Your task to perform on an android device: check data usage Image 0: 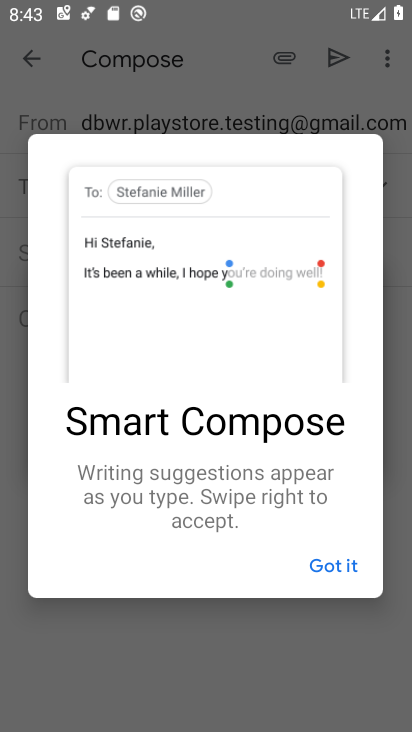
Step 0: press home button
Your task to perform on an android device: check data usage Image 1: 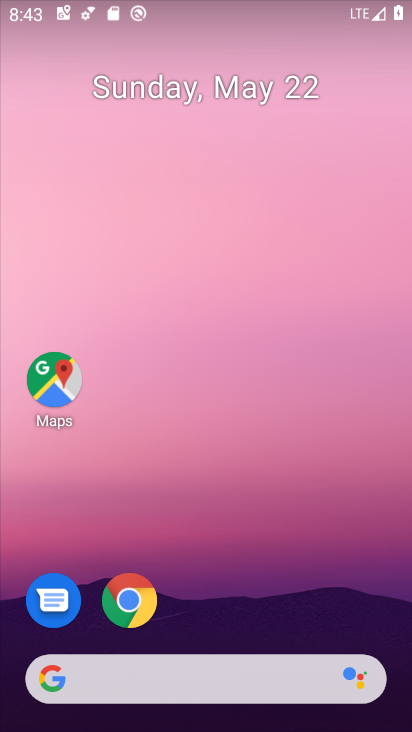
Step 1: drag from (208, 649) to (210, 406)
Your task to perform on an android device: check data usage Image 2: 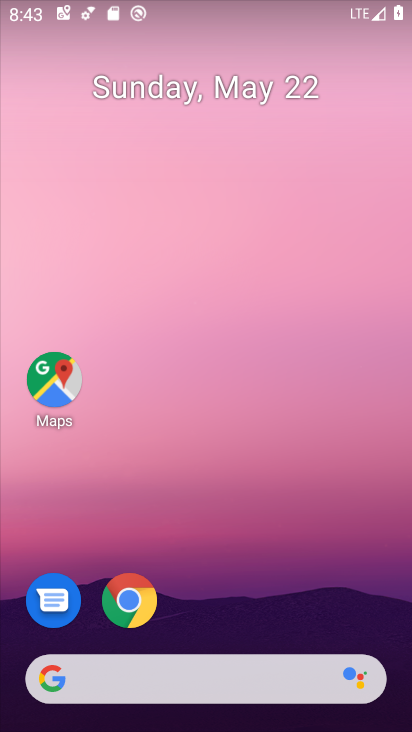
Step 2: drag from (216, 564) to (227, 270)
Your task to perform on an android device: check data usage Image 3: 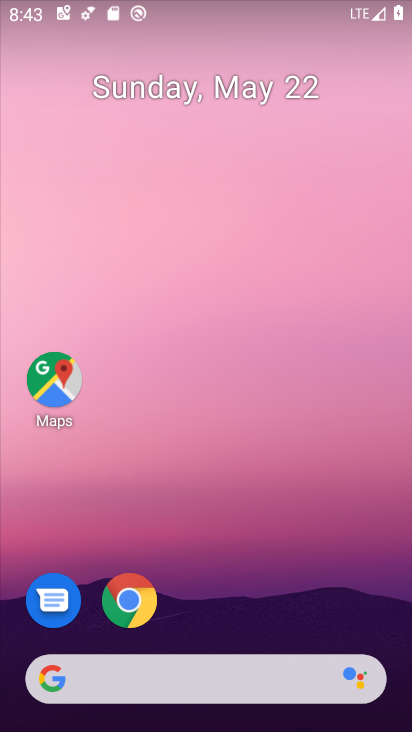
Step 3: drag from (164, 624) to (237, 134)
Your task to perform on an android device: check data usage Image 4: 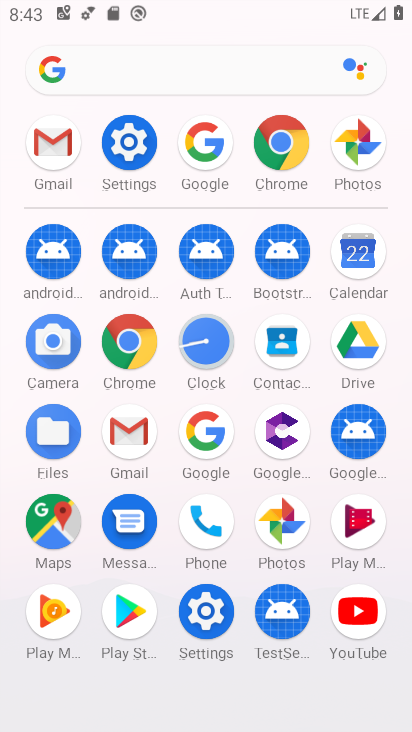
Step 4: click (140, 147)
Your task to perform on an android device: check data usage Image 5: 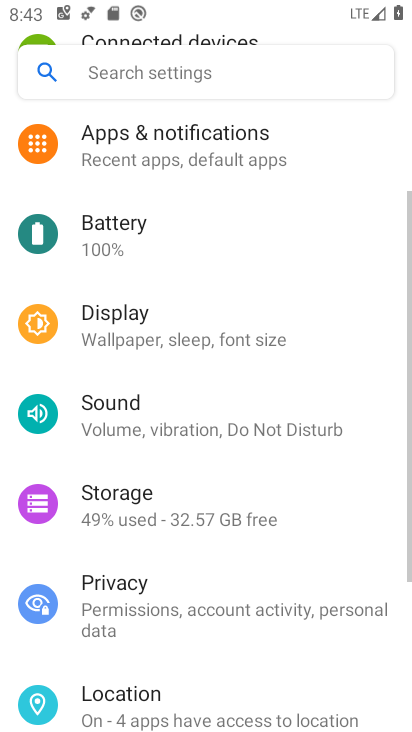
Step 5: drag from (160, 175) to (160, 496)
Your task to perform on an android device: check data usage Image 6: 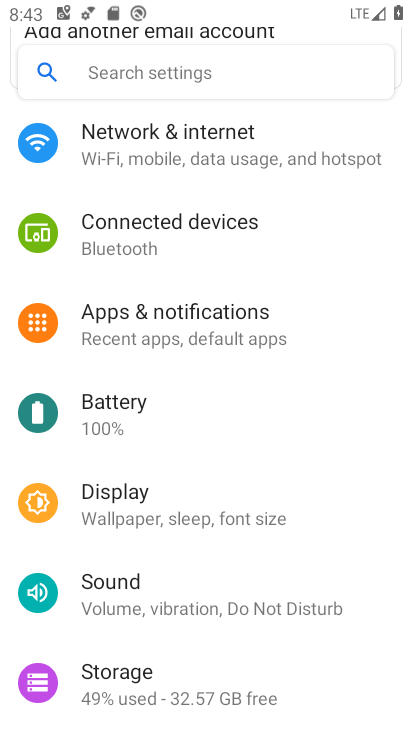
Step 6: click (184, 161)
Your task to perform on an android device: check data usage Image 7: 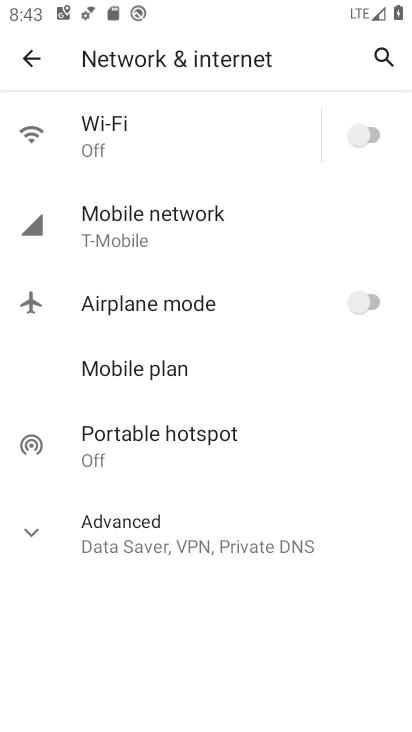
Step 7: click (120, 539)
Your task to perform on an android device: check data usage Image 8: 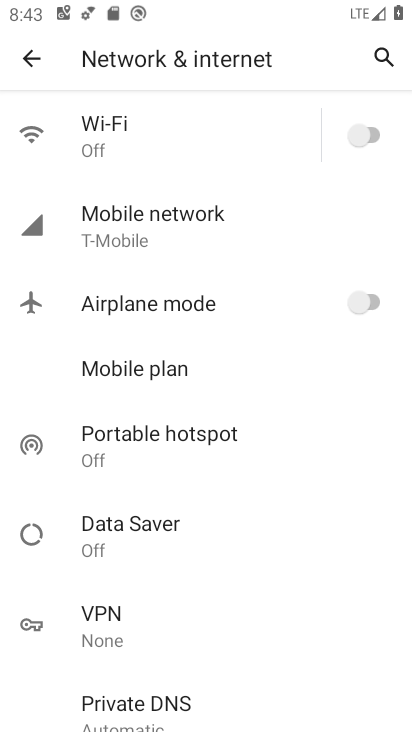
Step 8: click (147, 218)
Your task to perform on an android device: check data usage Image 9: 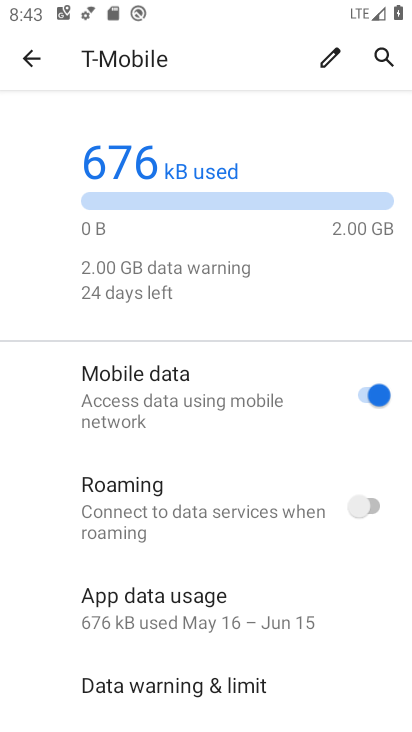
Step 9: task complete